Your task to perform on an android device: turn off wifi Image 0: 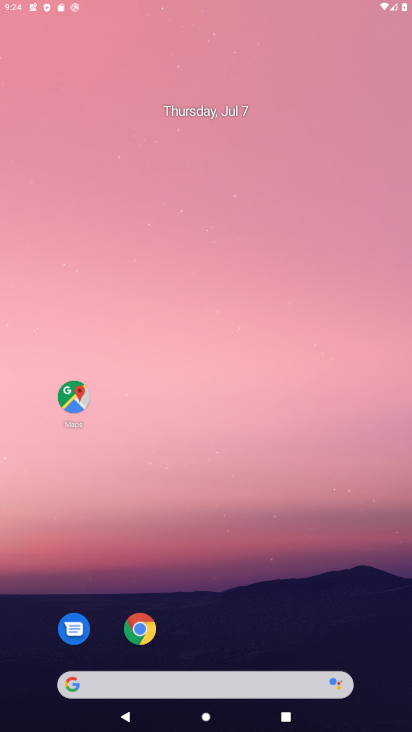
Step 0: click (221, 50)
Your task to perform on an android device: turn off wifi Image 1: 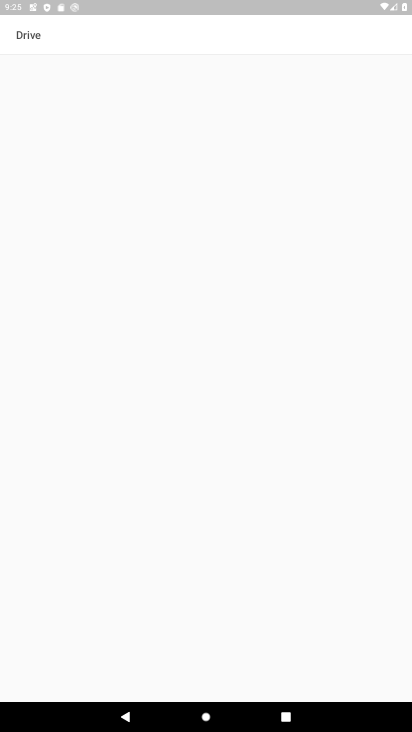
Step 1: press home button
Your task to perform on an android device: turn off wifi Image 2: 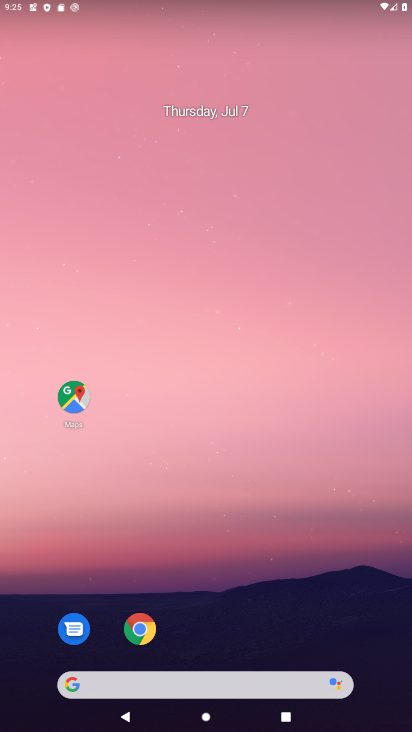
Step 2: drag from (219, 611) to (81, 62)
Your task to perform on an android device: turn off wifi Image 3: 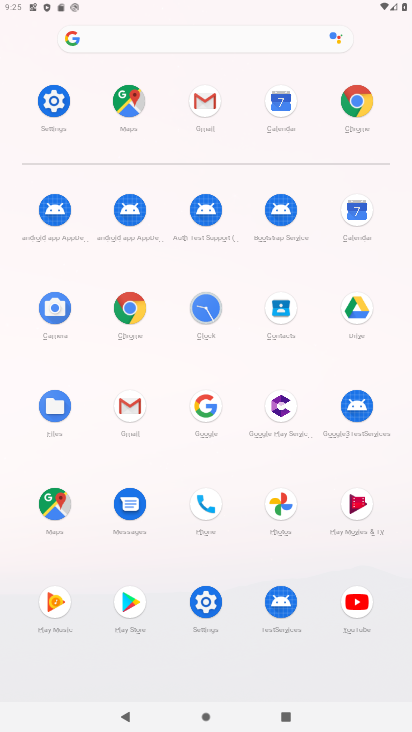
Step 3: click (49, 105)
Your task to perform on an android device: turn off wifi Image 4: 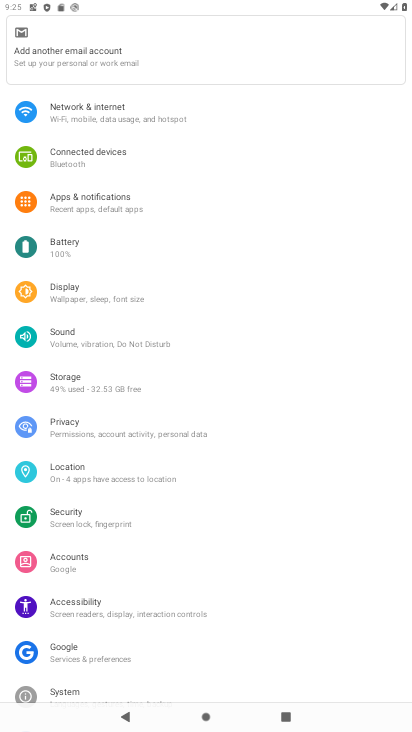
Step 4: click (91, 102)
Your task to perform on an android device: turn off wifi Image 5: 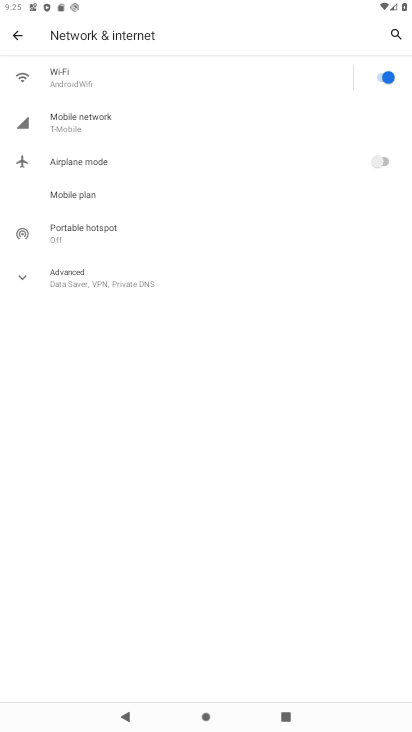
Step 5: click (386, 80)
Your task to perform on an android device: turn off wifi Image 6: 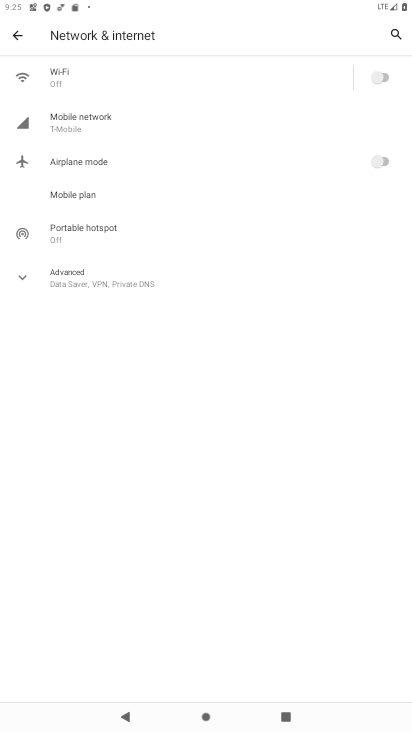
Step 6: task complete